Your task to perform on an android device: Open Google Chrome Image 0: 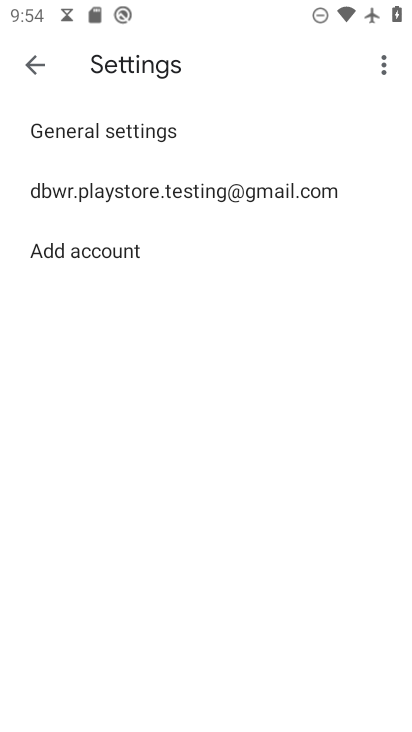
Step 0: press home button
Your task to perform on an android device: Open Google Chrome Image 1: 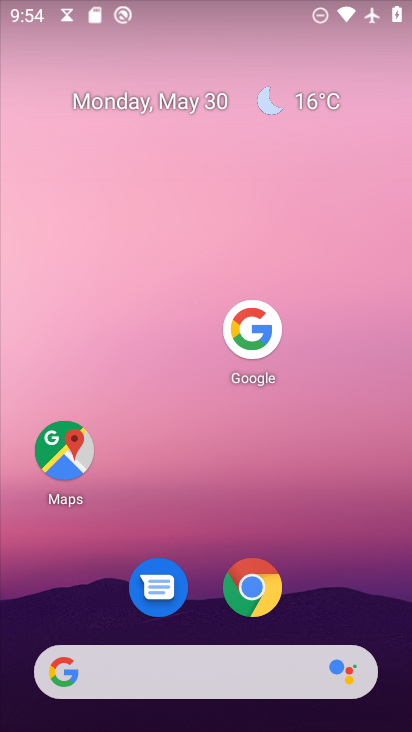
Step 1: click (264, 600)
Your task to perform on an android device: Open Google Chrome Image 2: 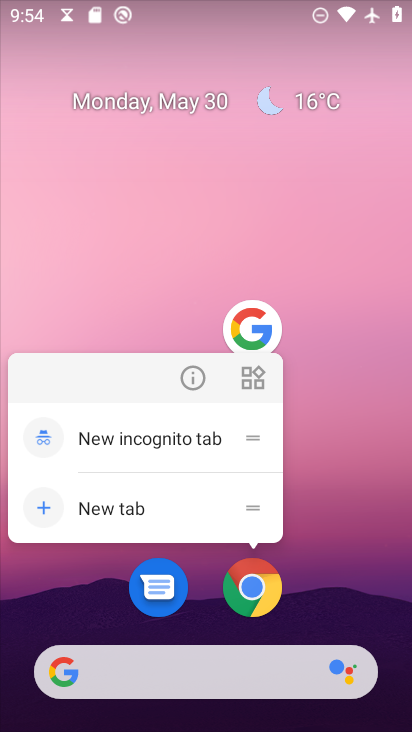
Step 2: click (260, 594)
Your task to perform on an android device: Open Google Chrome Image 3: 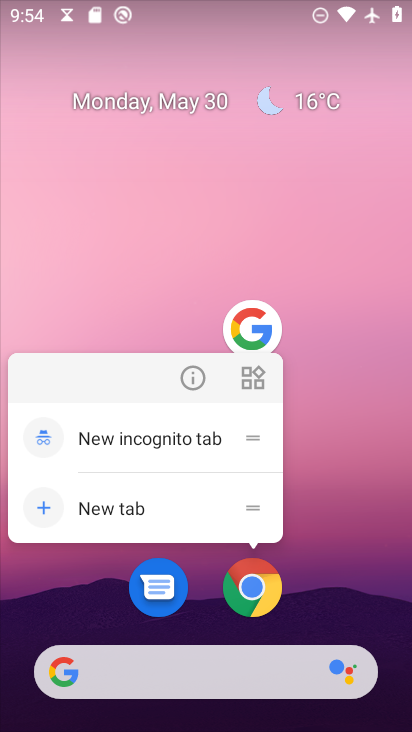
Step 3: click (252, 596)
Your task to perform on an android device: Open Google Chrome Image 4: 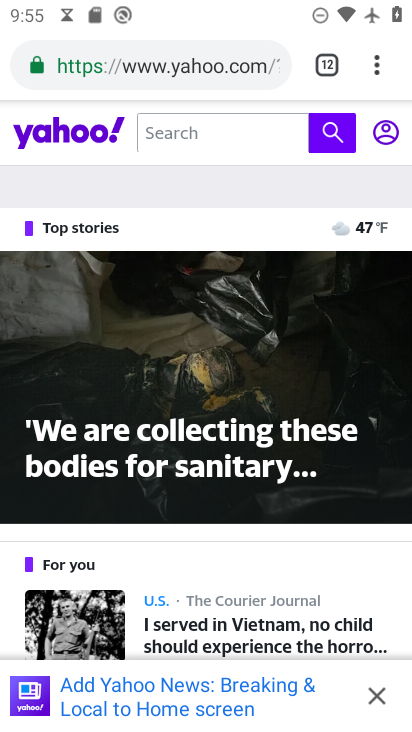
Step 4: task complete